Your task to perform on an android device: change keyboard looks Image 0: 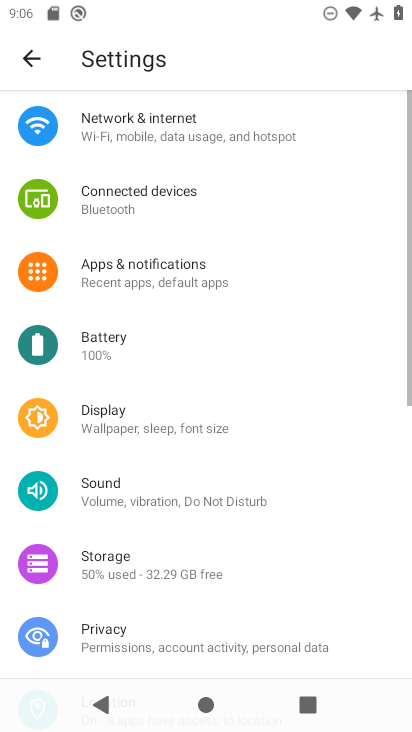
Step 0: press home button
Your task to perform on an android device: change keyboard looks Image 1: 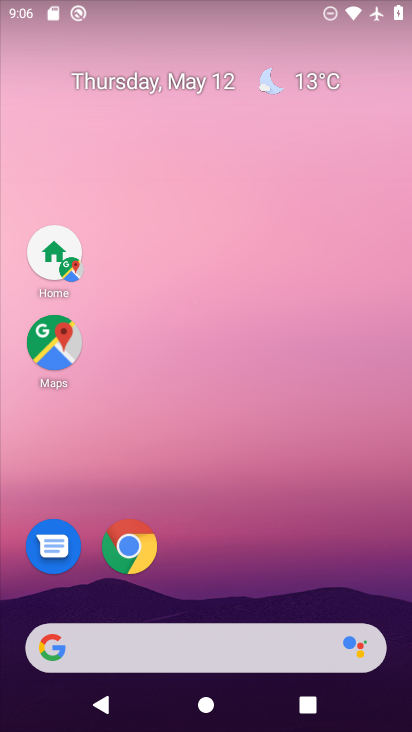
Step 1: drag from (203, 645) to (295, 38)
Your task to perform on an android device: change keyboard looks Image 2: 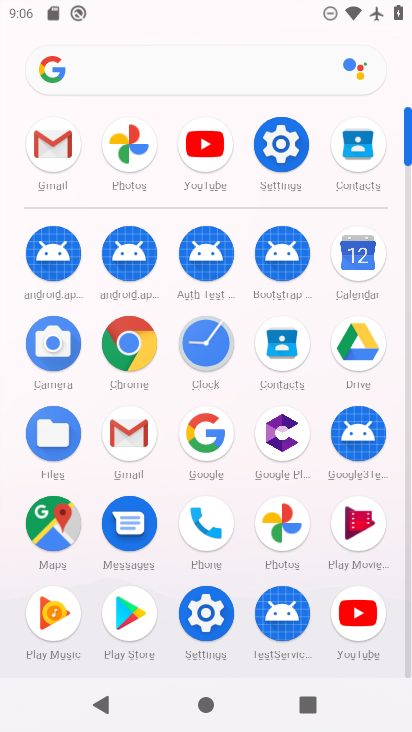
Step 2: click (282, 157)
Your task to perform on an android device: change keyboard looks Image 3: 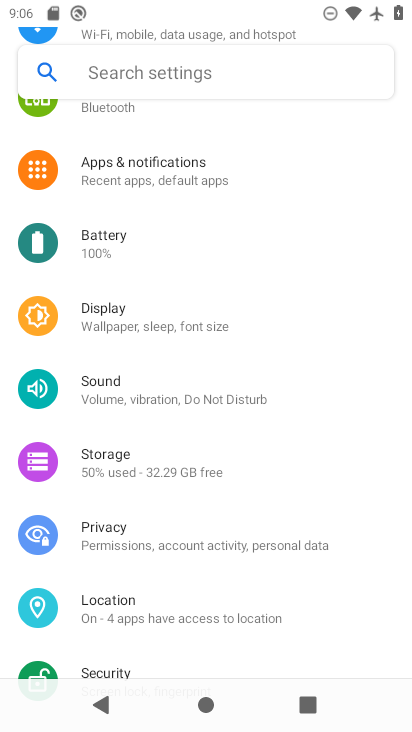
Step 3: drag from (183, 660) to (204, 270)
Your task to perform on an android device: change keyboard looks Image 4: 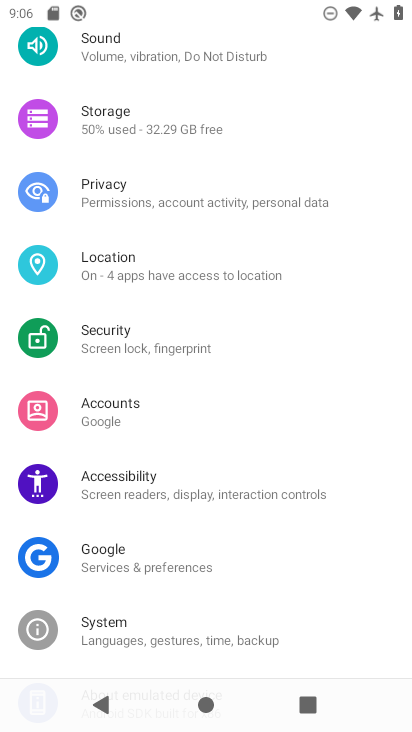
Step 4: click (179, 639)
Your task to perform on an android device: change keyboard looks Image 5: 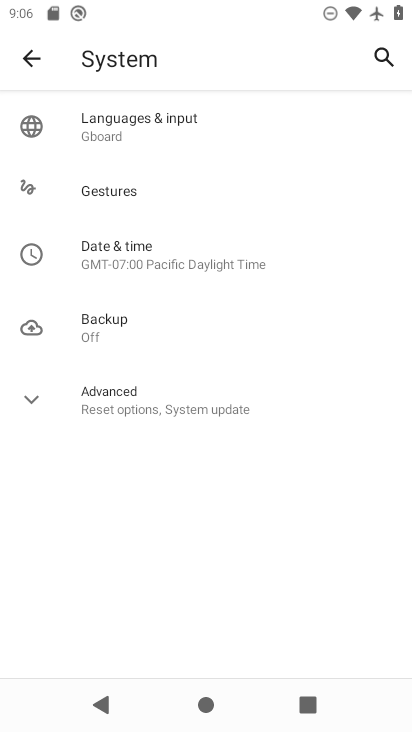
Step 5: click (118, 134)
Your task to perform on an android device: change keyboard looks Image 6: 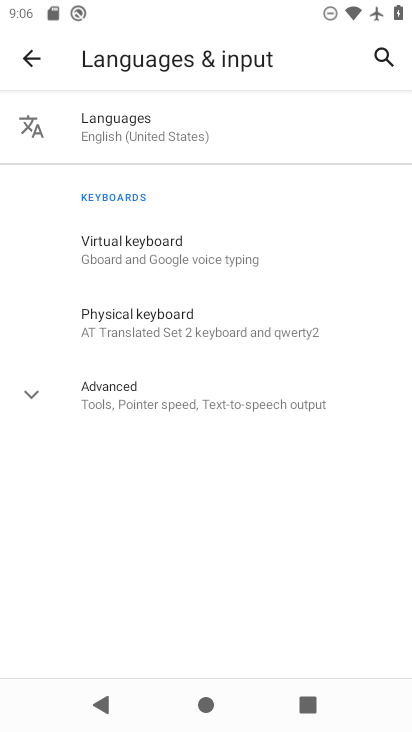
Step 6: click (154, 249)
Your task to perform on an android device: change keyboard looks Image 7: 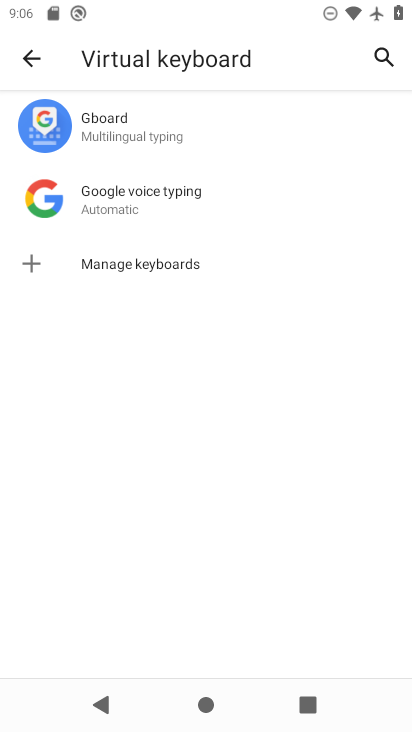
Step 7: click (104, 124)
Your task to perform on an android device: change keyboard looks Image 8: 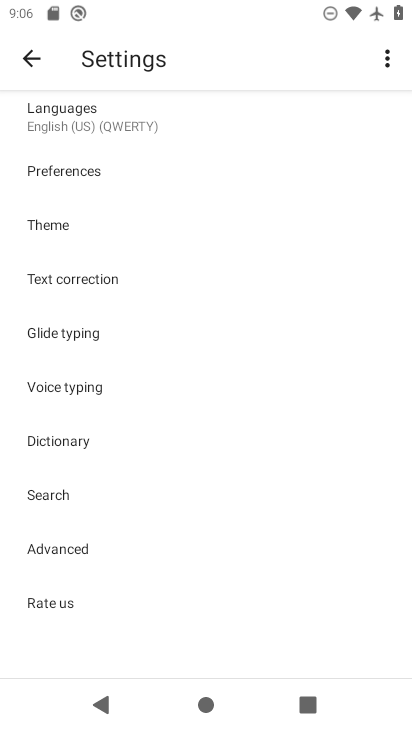
Step 8: click (61, 221)
Your task to perform on an android device: change keyboard looks Image 9: 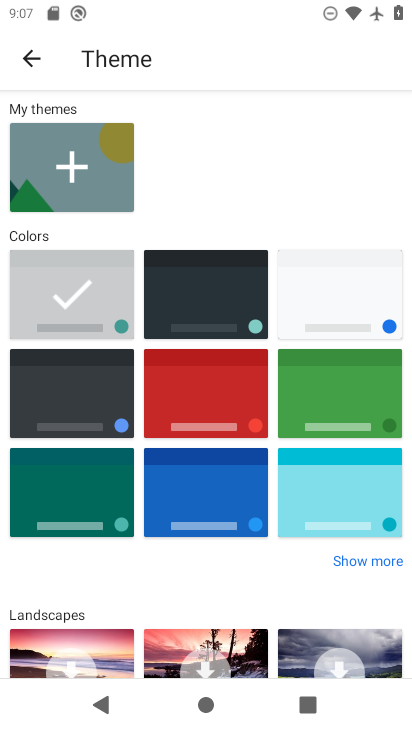
Step 9: click (352, 522)
Your task to perform on an android device: change keyboard looks Image 10: 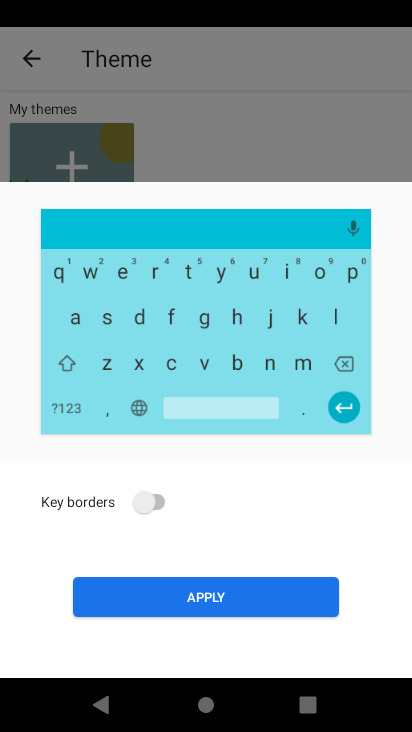
Step 10: click (194, 593)
Your task to perform on an android device: change keyboard looks Image 11: 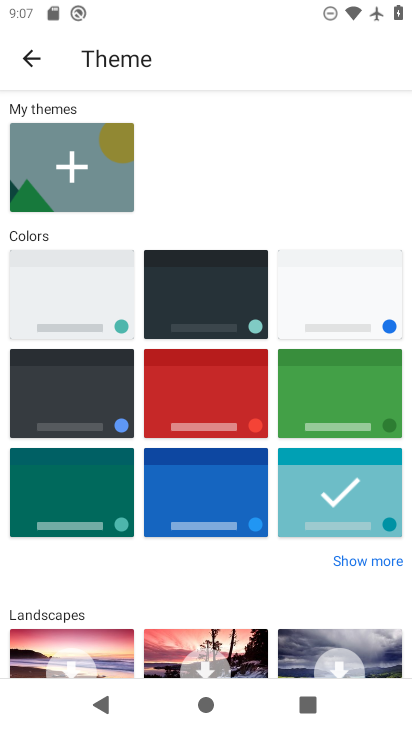
Step 11: task complete